Your task to perform on an android device: open app "Calculator" (install if not already installed) Image 0: 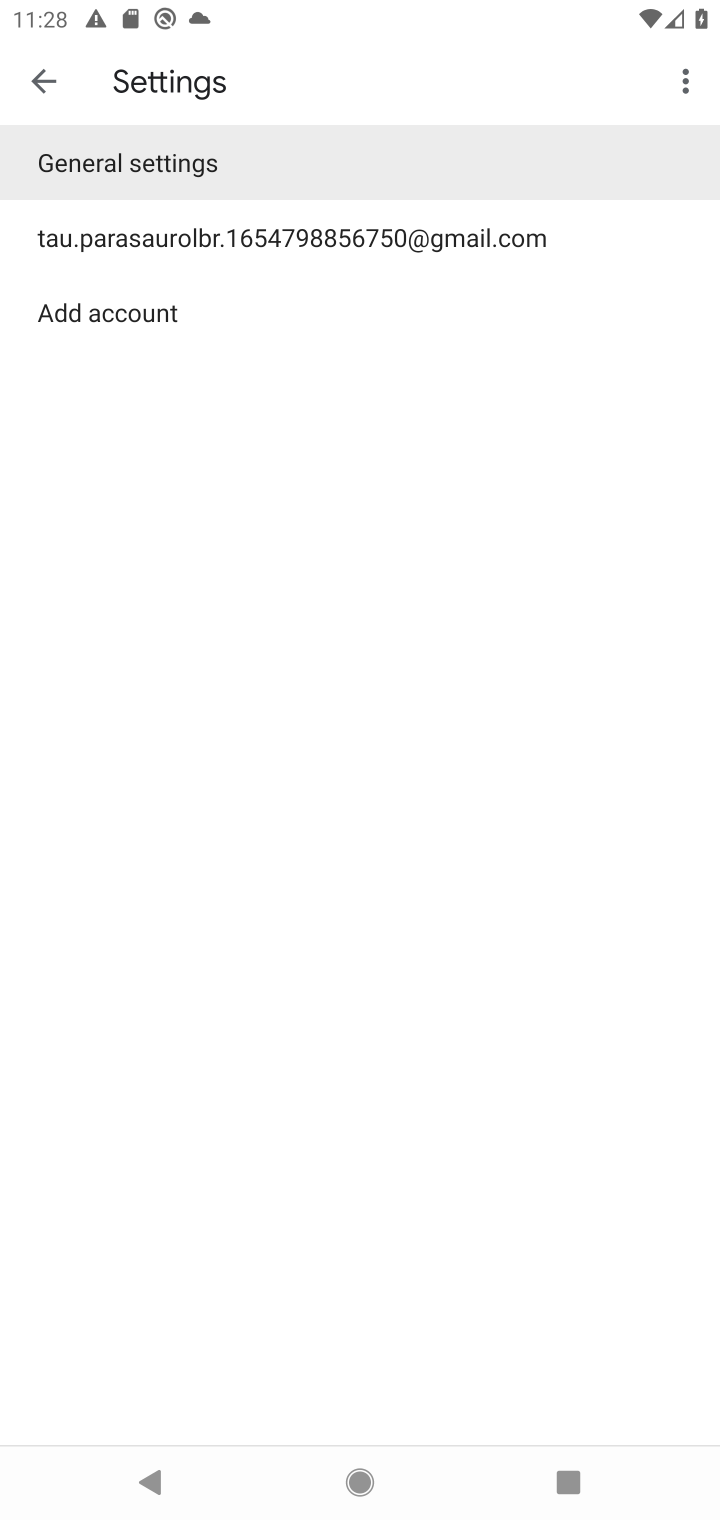
Step 0: press home button
Your task to perform on an android device: open app "Calculator" (install if not already installed) Image 1: 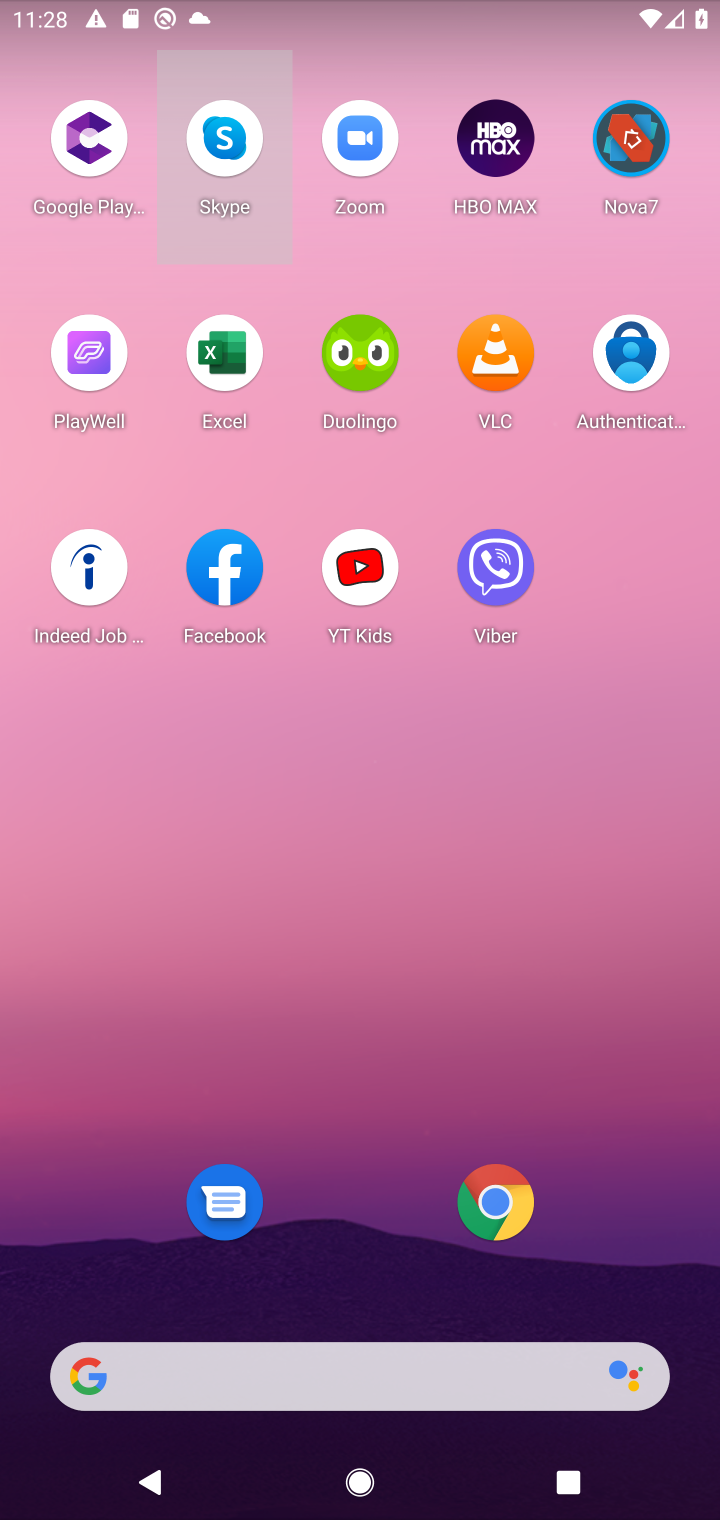
Step 1: drag from (345, 1170) to (510, 37)
Your task to perform on an android device: open app "Calculator" (install if not already installed) Image 2: 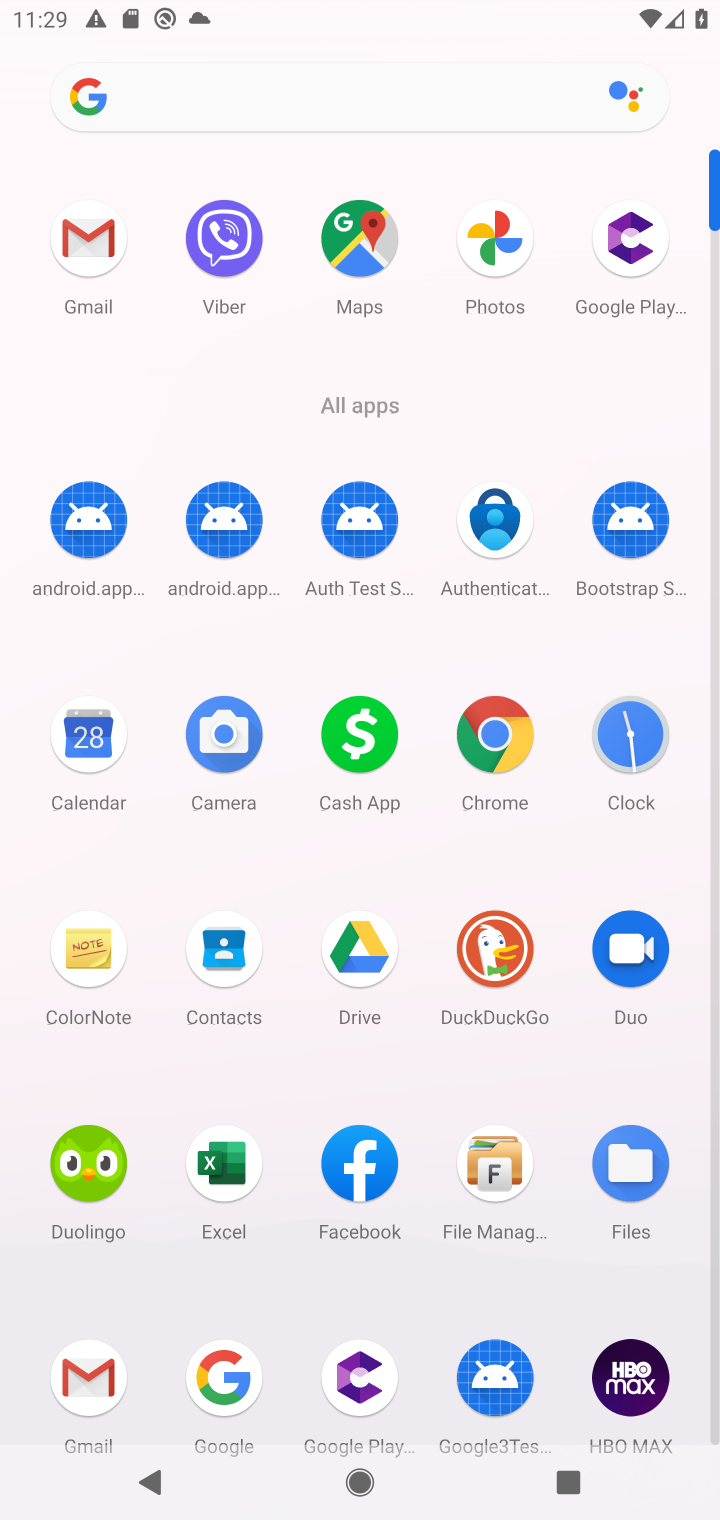
Step 2: click (361, 112)
Your task to perform on an android device: open app "Calculator" (install if not already installed) Image 3: 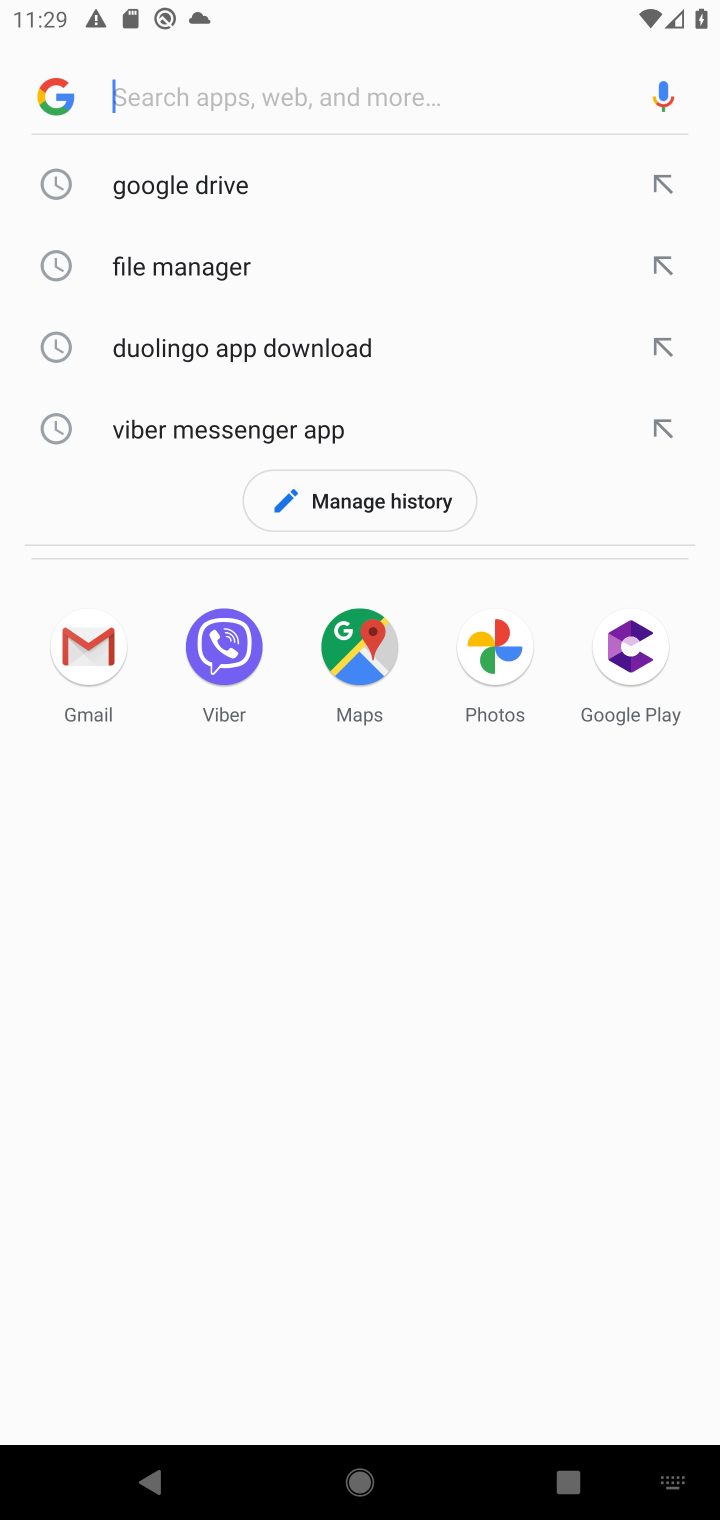
Step 3: type "calculator"
Your task to perform on an android device: open app "Calculator" (install if not already installed) Image 4: 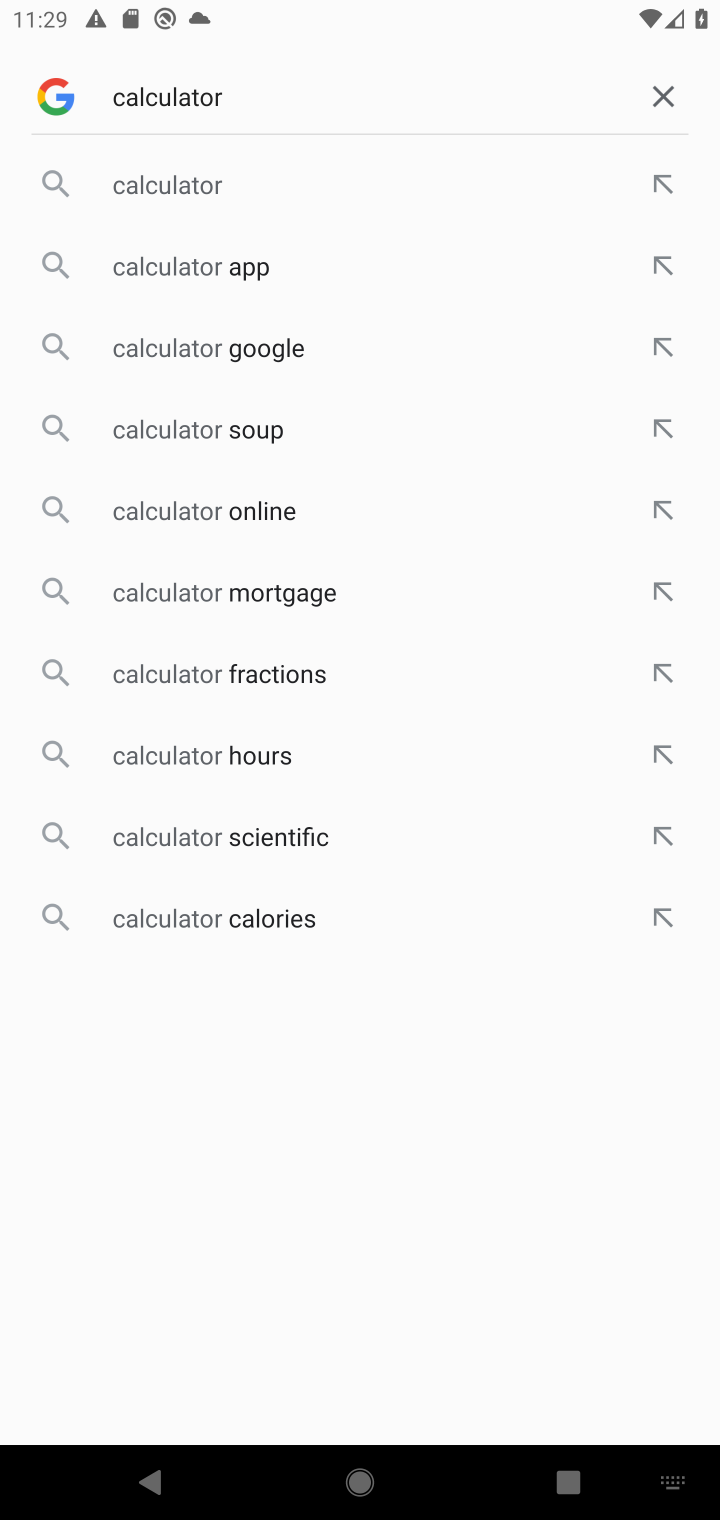
Step 4: click (151, 149)
Your task to perform on an android device: open app "Calculator" (install if not already installed) Image 5: 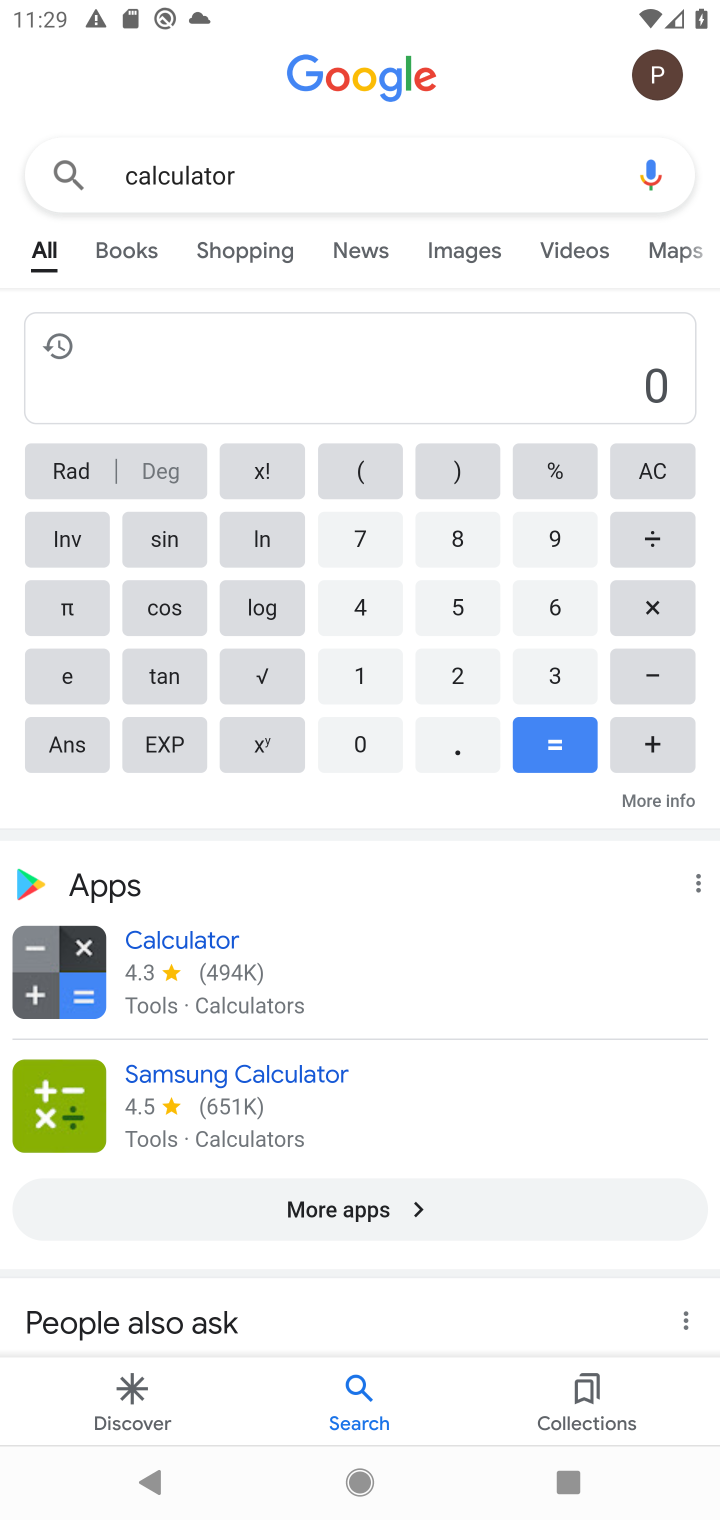
Step 5: task complete